Your task to perform on an android device: Go to wifi settings Image 0: 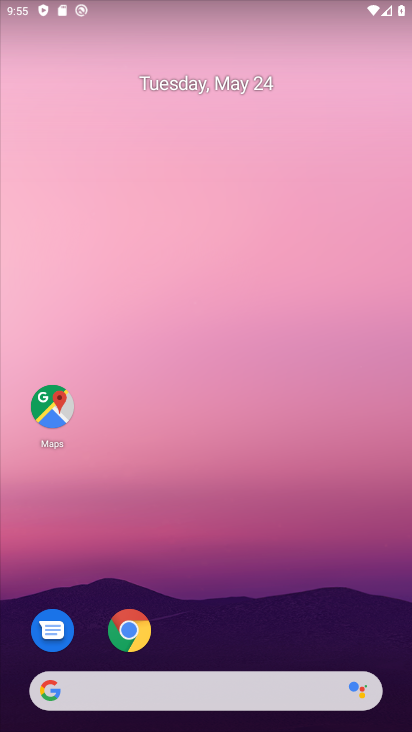
Step 0: click (275, 96)
Your task to perform on an android device: Go to wifi settings Image 1: 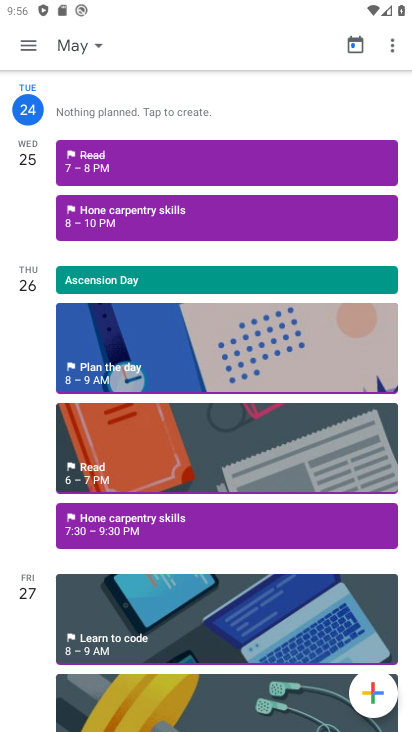
Step 1: press home button
Your task to perform on an android device: Go to wifi settings Image 2: 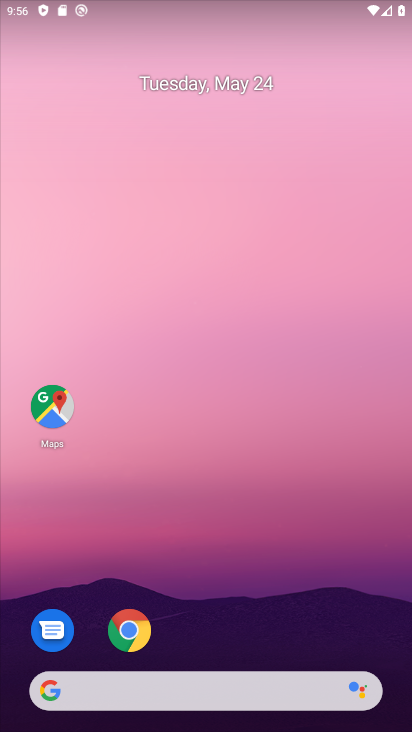
Step 2: drag from (220, 627) to (252, 140)
Your task to perform on an android device: Go to wifi settings Image 3: 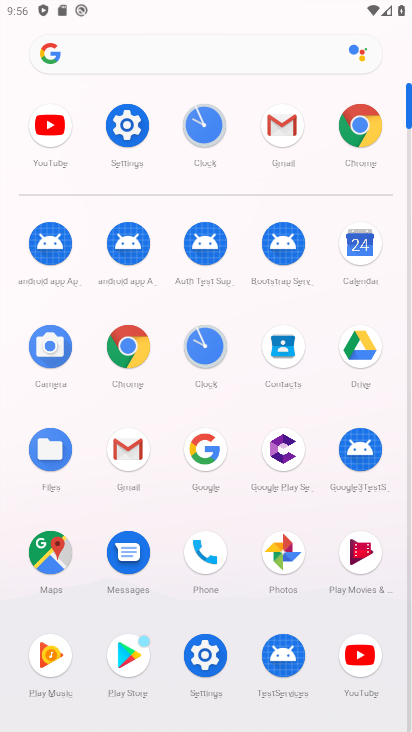
Step 3: click (124, 117)
Your task to perform on an android device: Go to wifi settings Image 4: 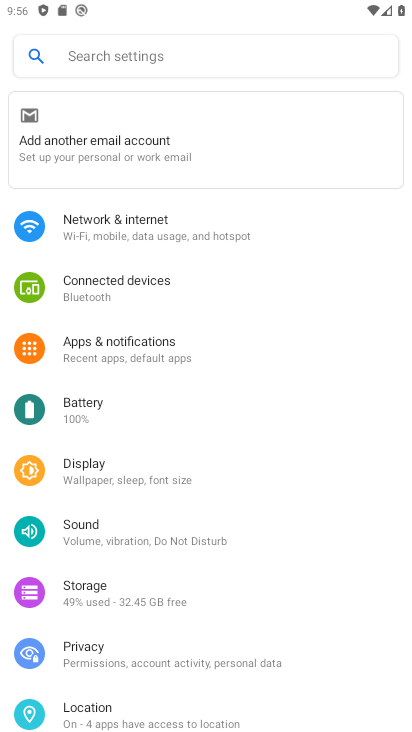
Step 4: click (133, 213)
Your task to perform on an android device: Go to wifi settings Image 5: 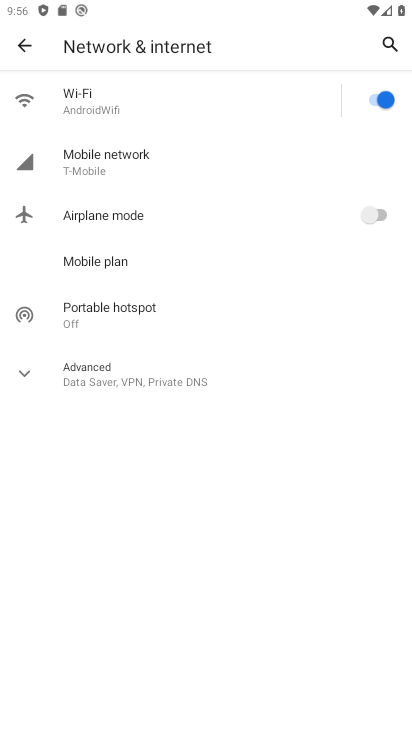
Step 5: click (131, 98)
Your task to perform on an android device: Go to wifi settings Image 6: 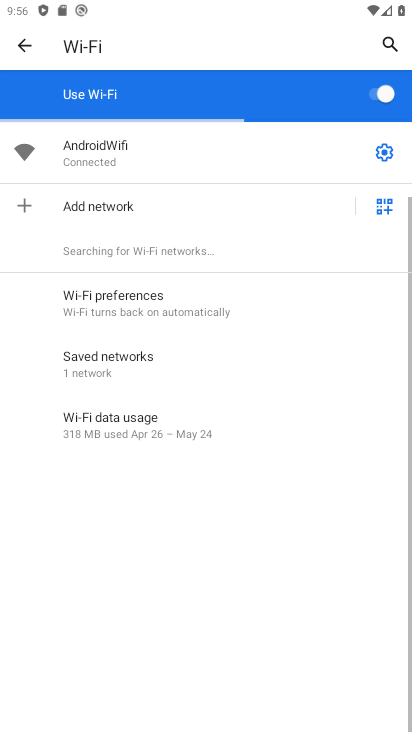
Step 6: task complete